Your task to perform on an android device: Do I have any events today? Image 0: 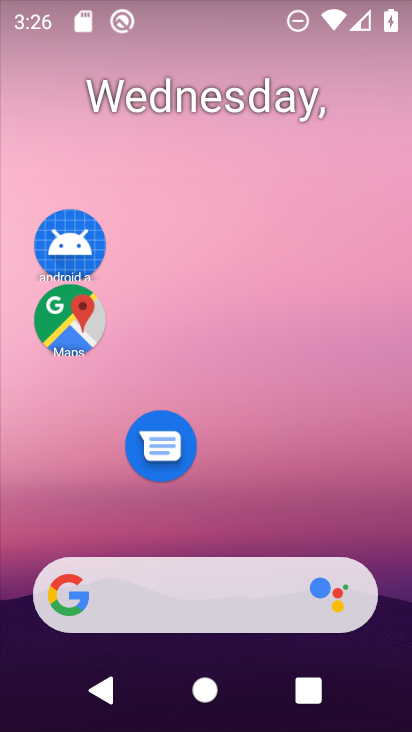
Step 0: drag from (302, 538) to (267, 129)
Your task to perform on an android device: Do I have any events today? Image 1: 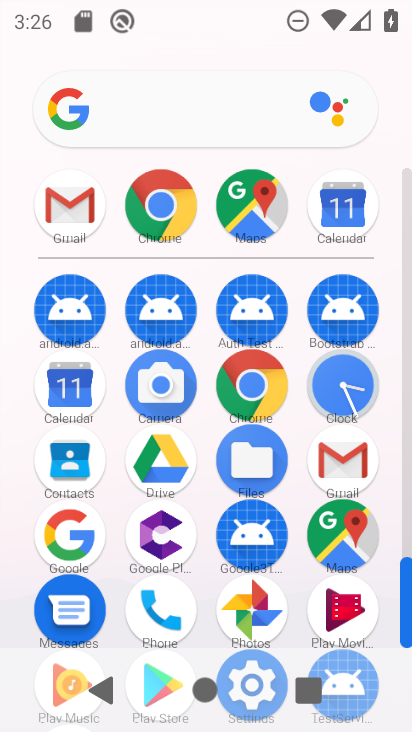
Step 1: click (322, 215)
Your task to perform on an android device: Do I have any events today? Image 2: 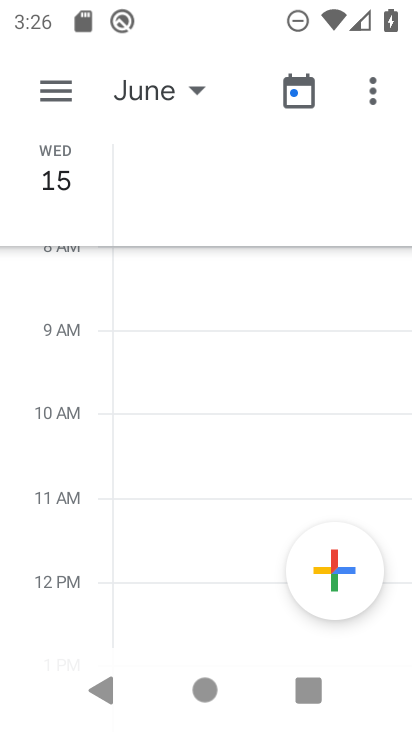
Step 2: click (64, 86)
Your task to perform on an android device: Do I have any events today? Image 3: 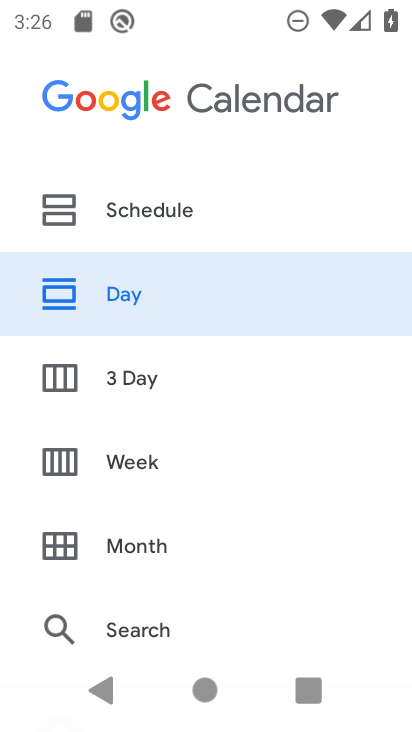
Step 3: click (127, 293)
Your task to perform on an android device: Do I have any events today? Image 4: 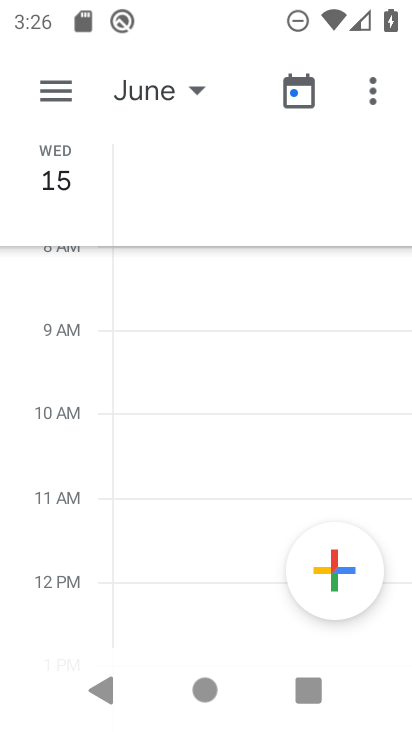
Step 4: click (163, 111)
Your task to perform on an android device: Do I have any events today? Image 5: 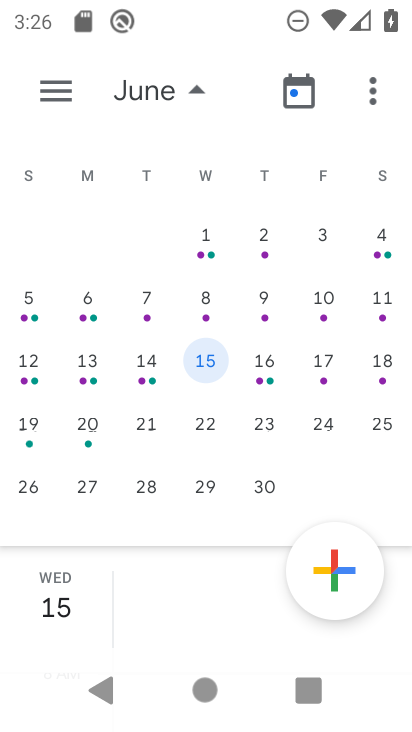
Step 5: task complete